Your task to perform on an android device: open wifi settings Image 0: 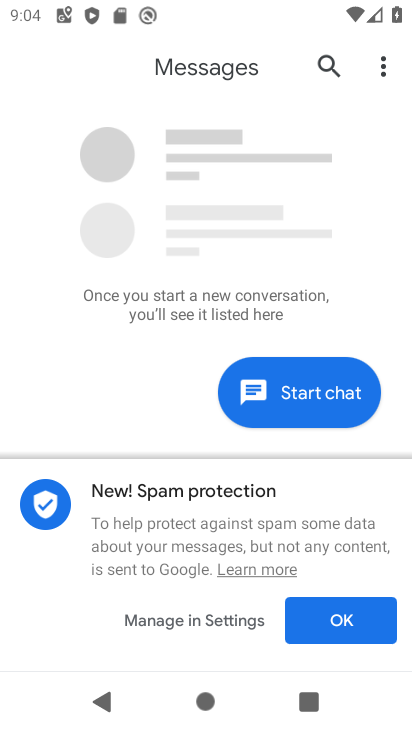
Step 0: press home button
Your task to perform on an android device: open wifi settings Image 1: 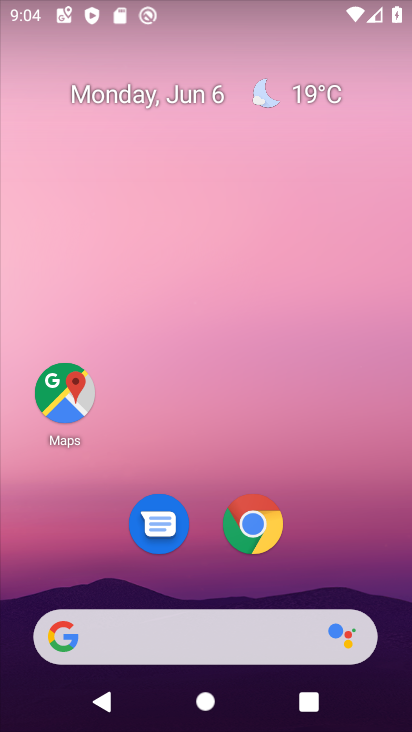
Step 1: drag from (193, 457) to (208, 35)
Your task to perform on an android device: open wifi settings Image 2: 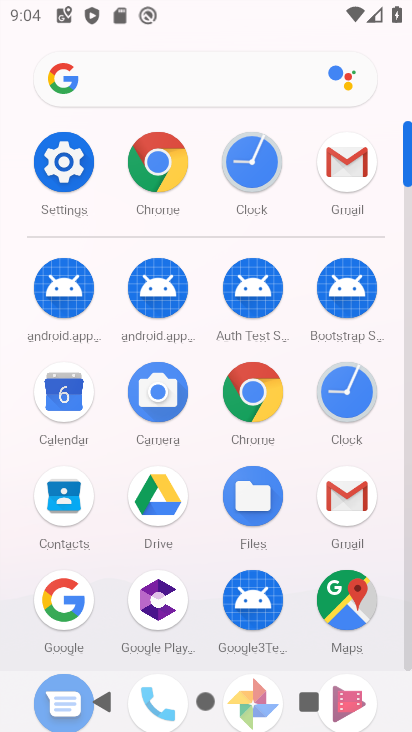
Step 2: click (71, 156)
Your task to perform on an android device: open wifi settings Image 3: 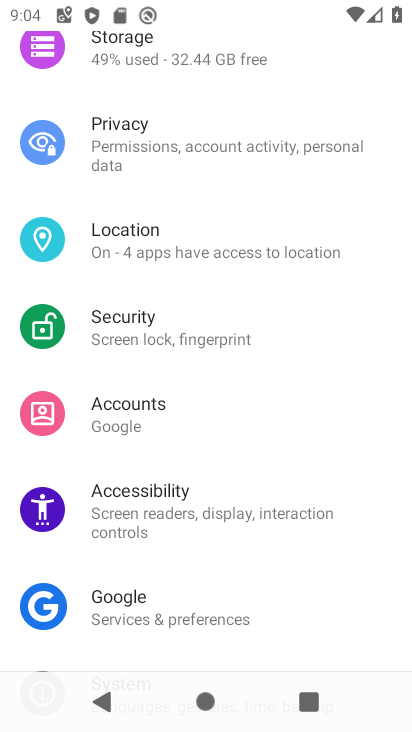
Step 3: drag from (189, 246) to (209, 499)
Your task to perform on an android device: open wifi settings Image 4: 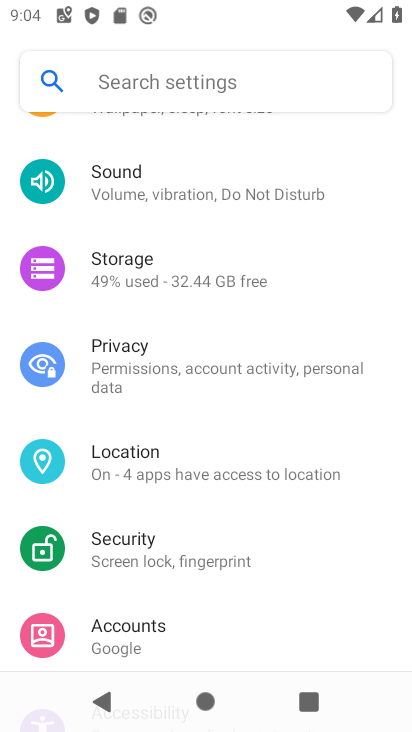
Step 4: drag from (180, 296) to (162, 532)
Your task to perform on an android device: open wifi settings Image 5: 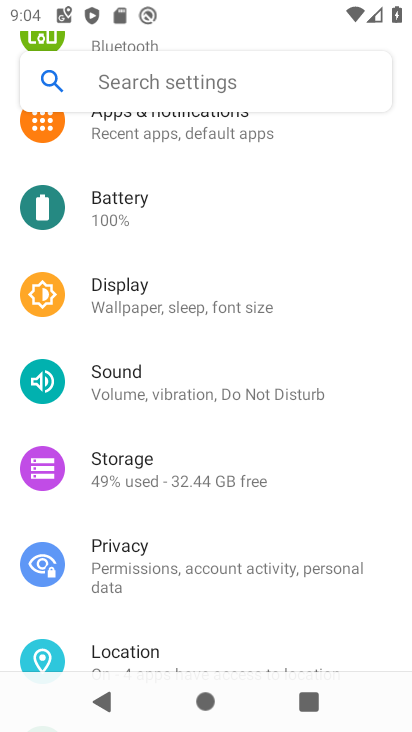
Step 5: drag from (190, 181) to (167, 517)
Your task to perform on an android device: open wifi settings Image 6: 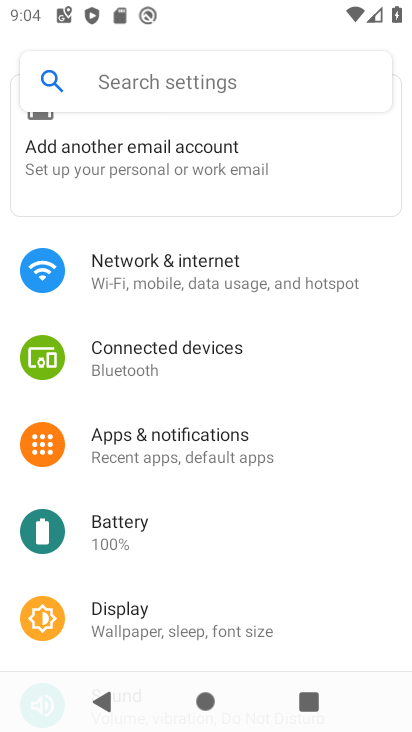
Step 6: click (189, 275)
Your task to perform on an android device: open wifi settings Image 7: 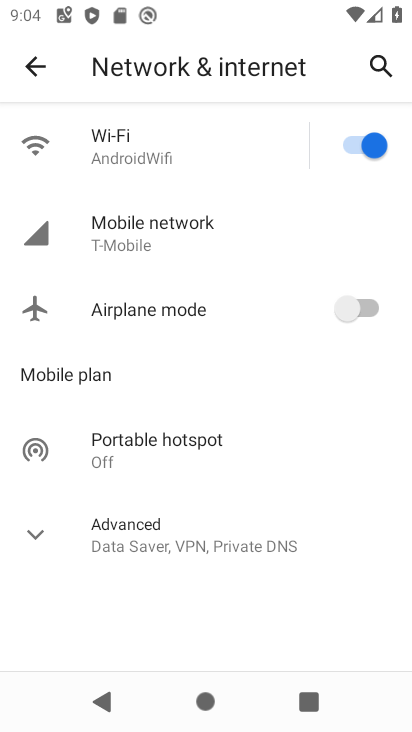
Step 7: click (149, 147)
Your task to perform on an android device: open wifi settings Image 8: 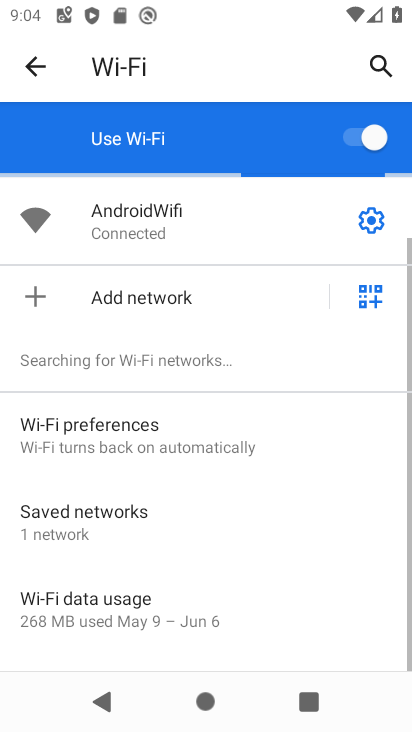
Step 8: task complete